Your task to perform on an android device: check battery use Image 0: 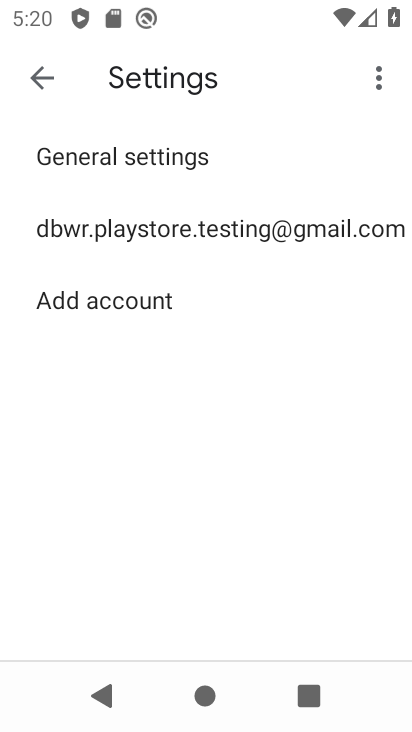
Step 0: press home button
Your task to perform on an android device: check battery use Image 1: 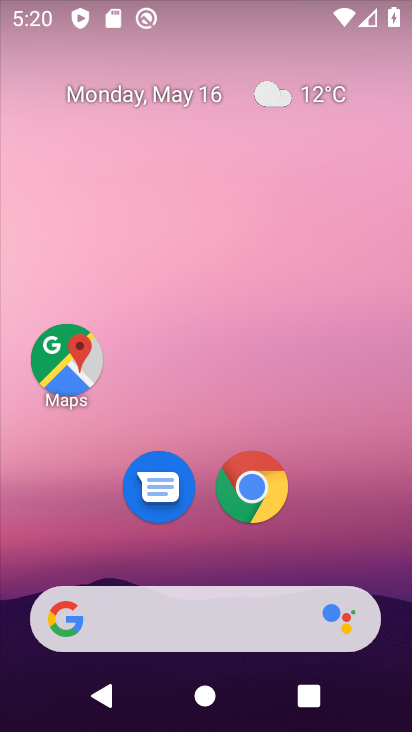
Step 1: drag from (296, 526) to (309, 11)
Your task to perform on an android device: check battery use Image 2: 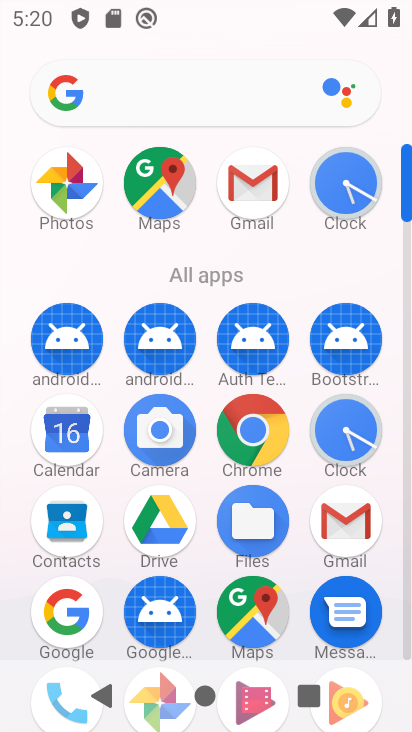
Step 2: drag from (281, 621) to (296, 231)
Your task to perform on an android device: check battery use Image 3: 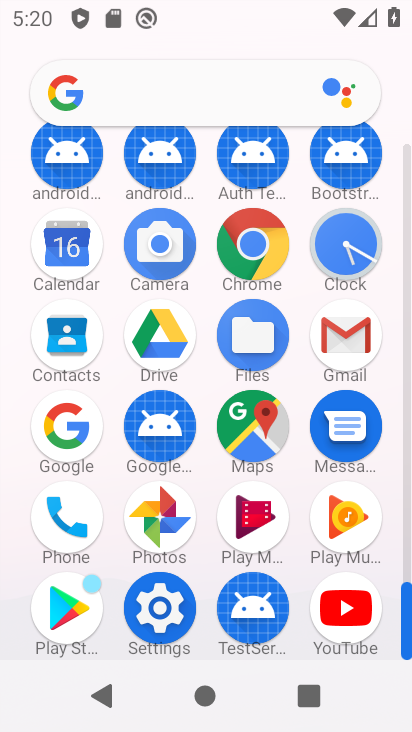
Step 3: click (167, 590)
Your task to perform on an android device: check battery use Image 4: 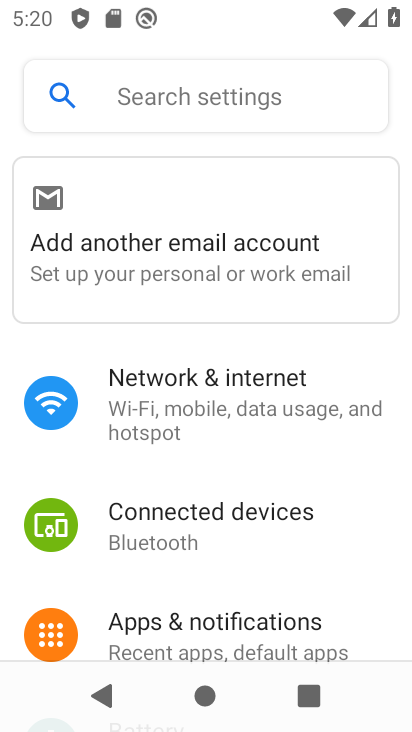
Step 4: drag from (328, 527) to (348, 139)
Your task to perform on an android device: check battery use Image 5: 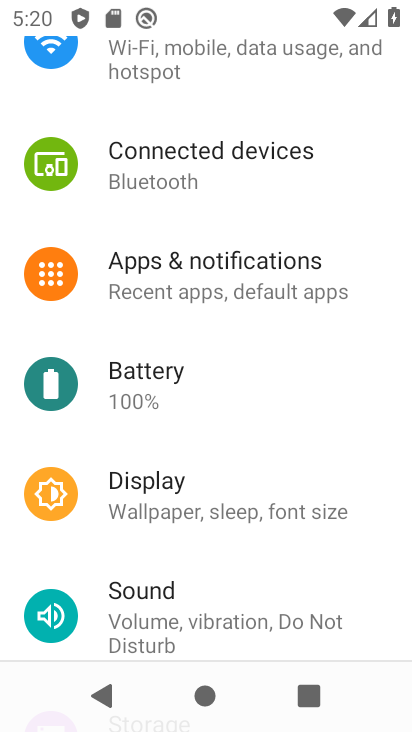
Step 5: click (200, 377)
Your task to perform on an android device: check battery use Image 6: 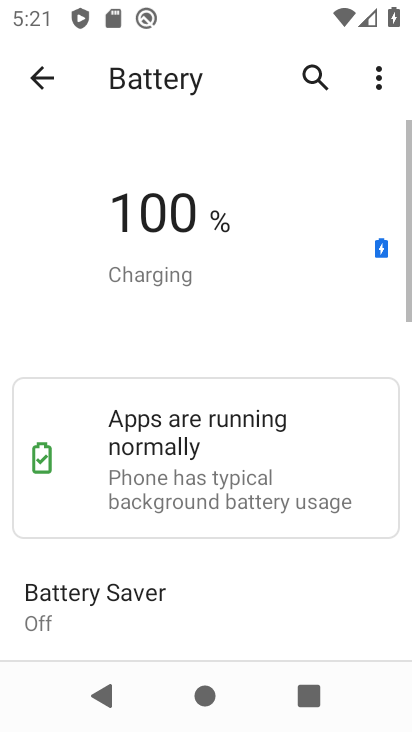
Step 6: click (382, 92)
Your task to perform on an android device: check battery use Image 7: 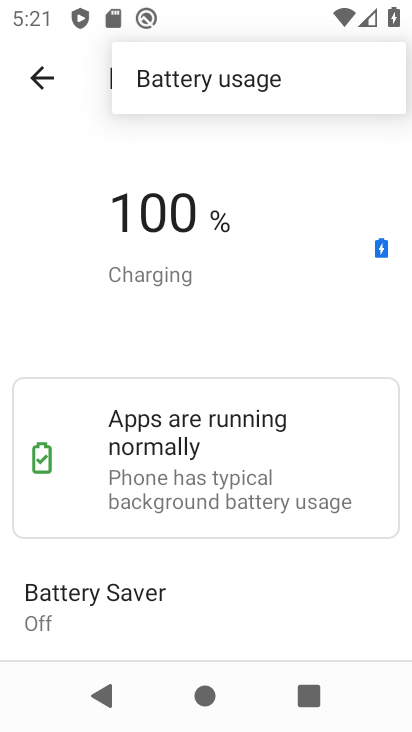
Step 7: click (255, 85)
Your task to perform on an android device: check battery use Image 8: 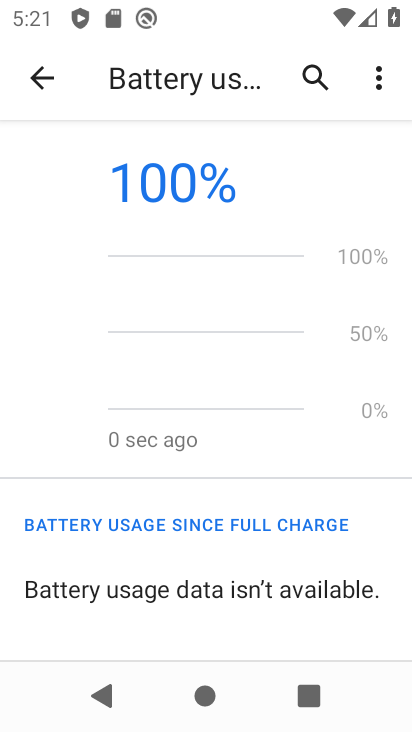
Step 8: task complete